Your task to perform on an android device: Check the news Image 0: 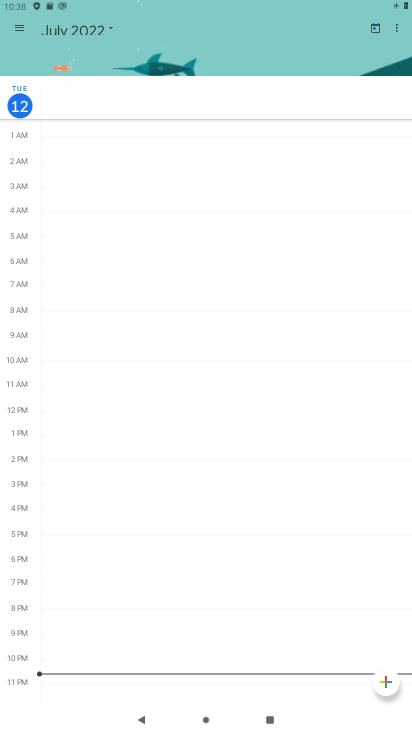
Step 0: press home button
Your task to perform on an android device: Check the news Image 1: 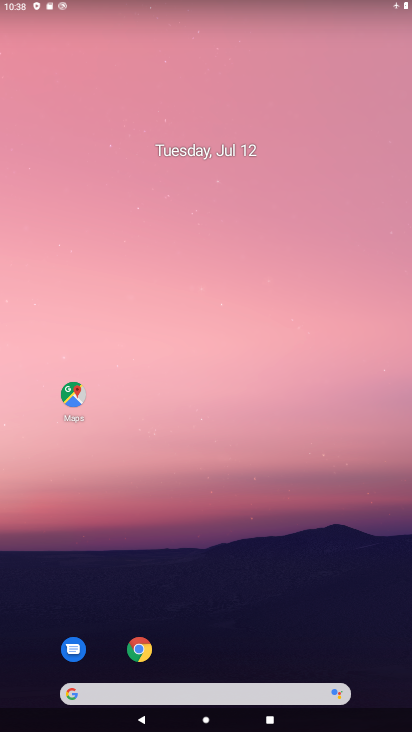
Step 1: task complete